Your task to perform on an android device: Open Reddit.com Image 0: 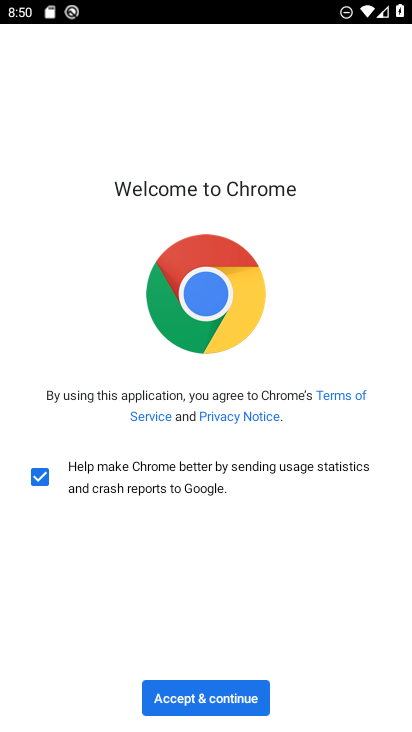
Step 0: press home button
Your task to perform on an android device: Open Reddit.com Image 1: 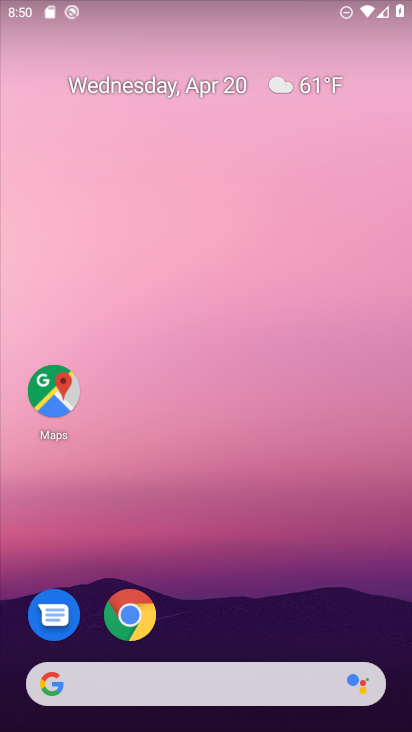
Step 1: drag from (276, 613) to (313, 136)
Your task to perform on an android device: Open Reddit.com Image 2: 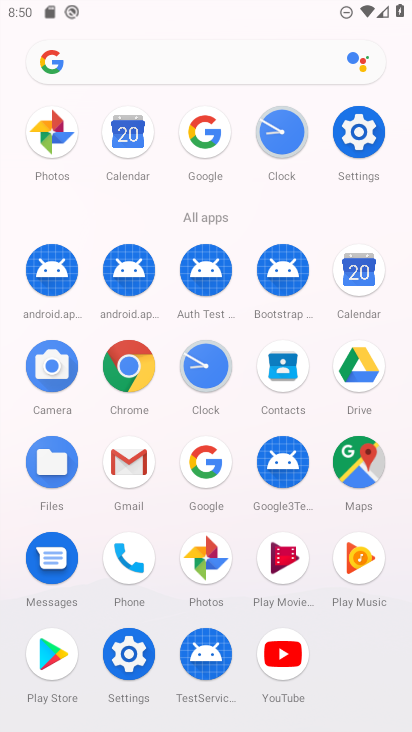
Step 2: click (115, 363)
Your task to perform on an android device: Open Reddit.com Image 3: 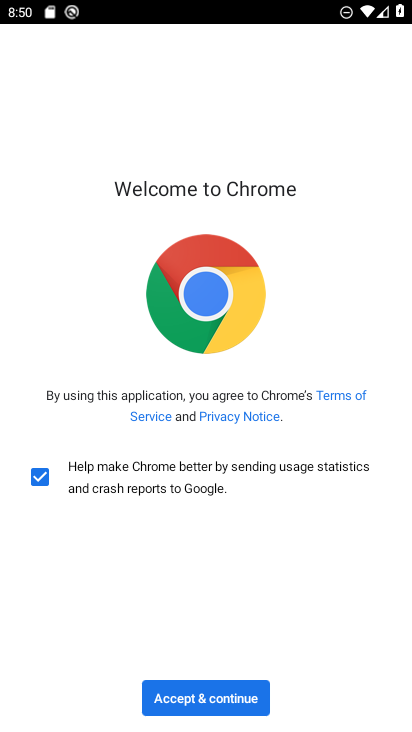
Step 3: click (242, 684)
Your task to perform on an android device: Open Reddit.com Image 4: 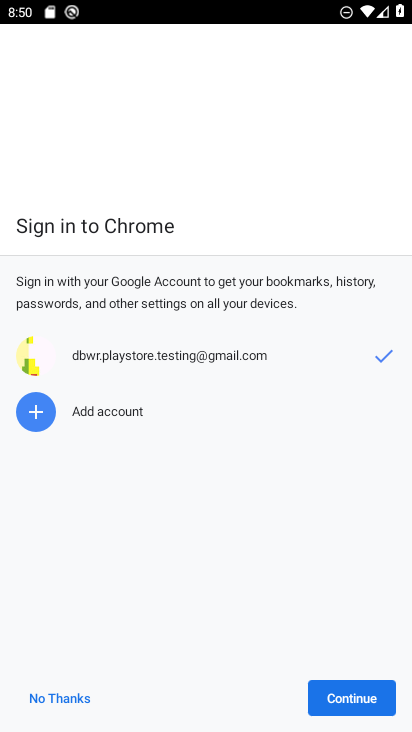
Step 4: click (351, 684)
Your task to perform on an android device: Open Reddit.com Image 5: 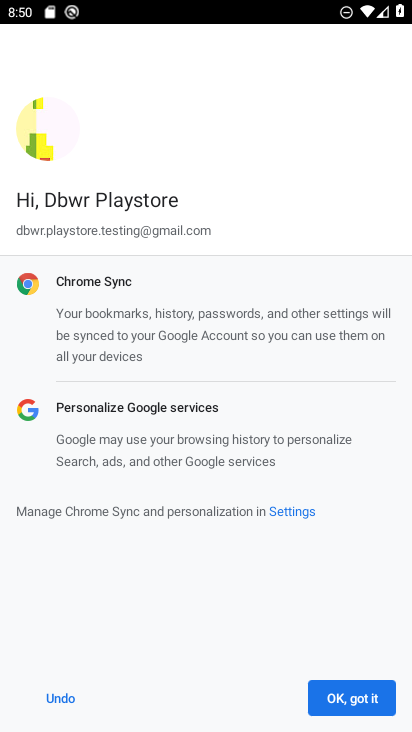
Step 5: click (360, 694)
Your task to perform on an android device: Open Reddit.com Image 6: 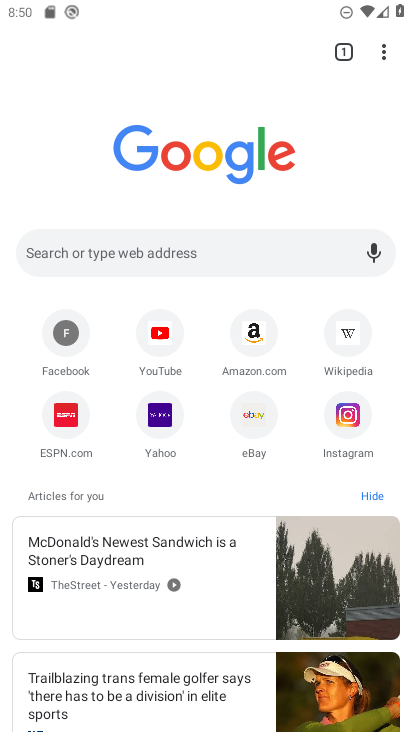
Step 6: click (255, 255)
Your task to perform on an android device: Open Reddit.com Image 7: 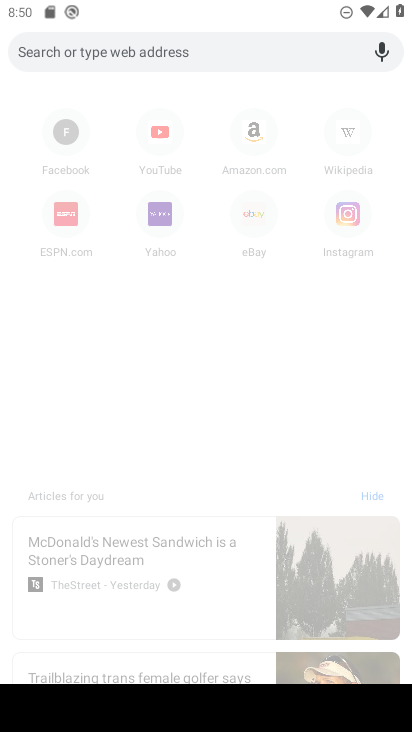
Step 7: type "Reddit.com"
Your task to perform on an android device: Open Reddit.com Image 8: 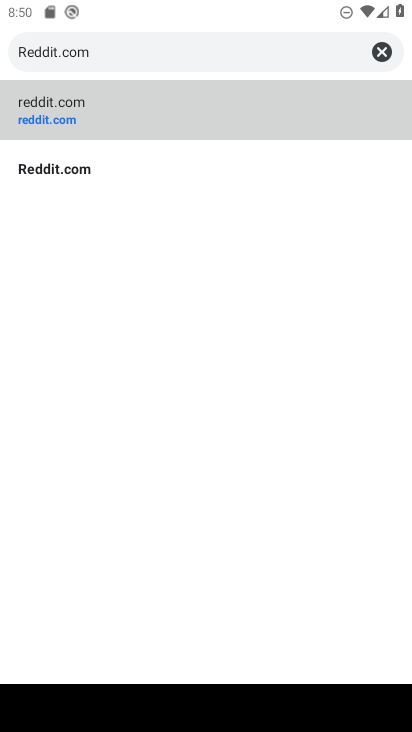
Step 8: click (205, 110)
Your task to perform on an android device: Open Reddit.com Image 9: 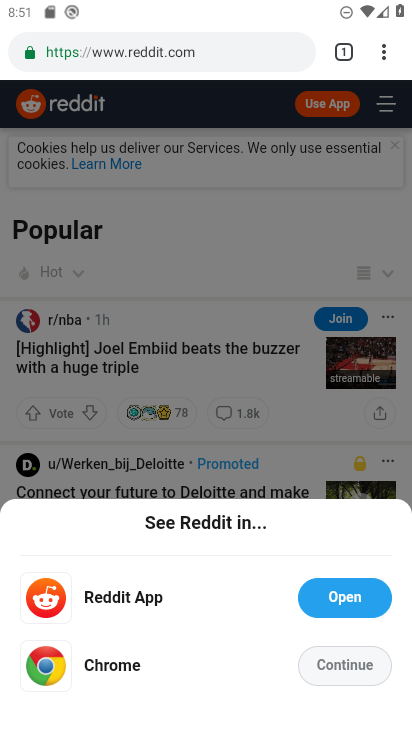
Step 9: task complete